Your task to perform on an android device: star an email in the gmail app Image 0: 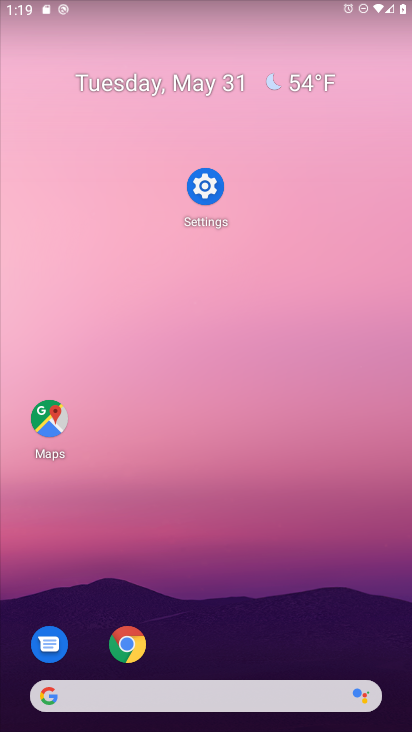
Step 0: press home button
Your task to perform on an android device: star an email in the gmail app Image 1: 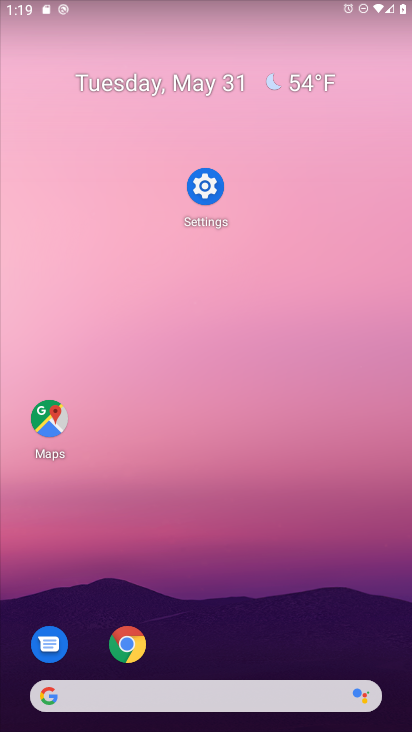
Step 1: drag from (243, 619) to (262, 147)
Your task to perform on an android device: star an email in the gmail app Image 2: 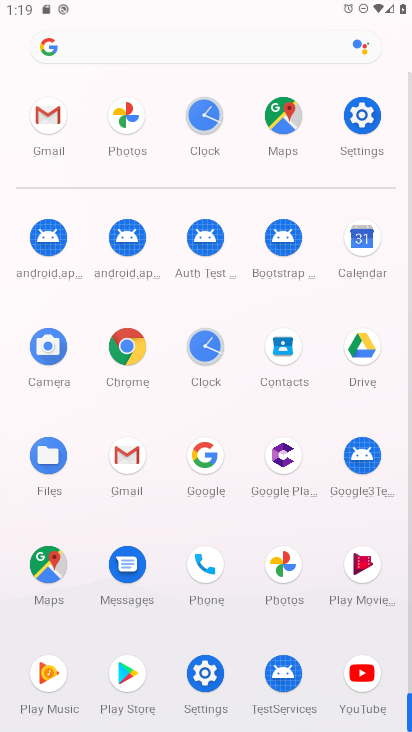
Step 2: click (42, 127)
Your task to perform on an android device: star an email in the gmail app Image 3: 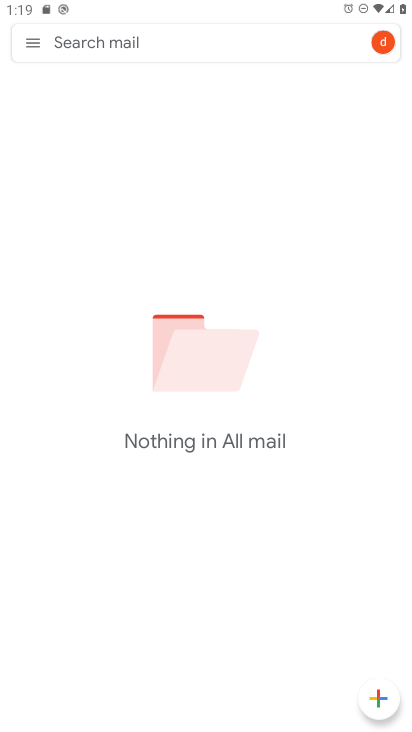
Step 3: click (28, 47)
Your task to perform on an android device: star an email in the gmail app Image 4: 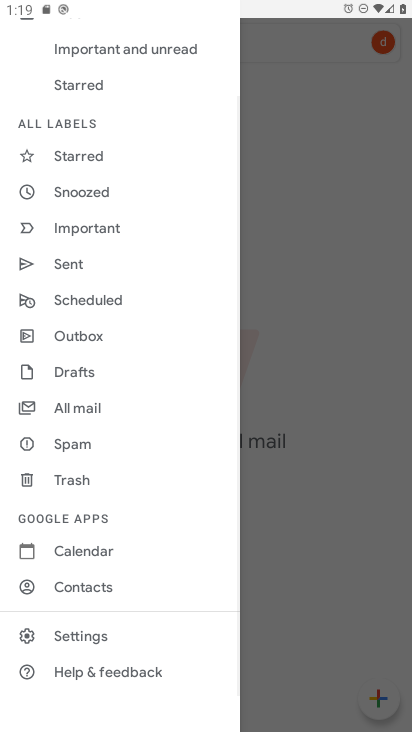
Step 4: click (81, 409)
Your task to perform on an android device: star an email in the gmail app Image 5: 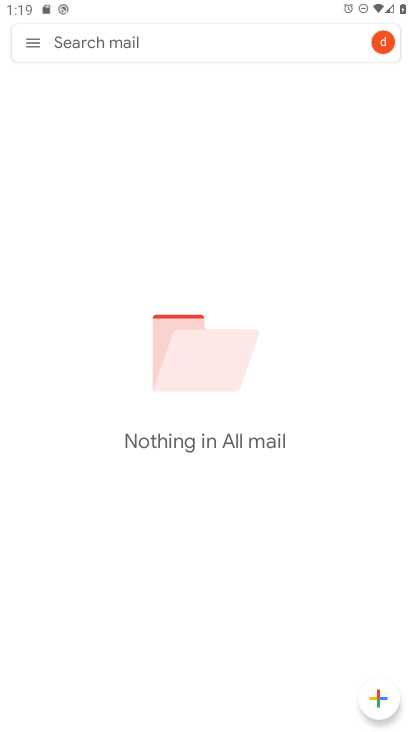
Step 5: task complete